Your task to perform on an android device: set the timer Image 0: 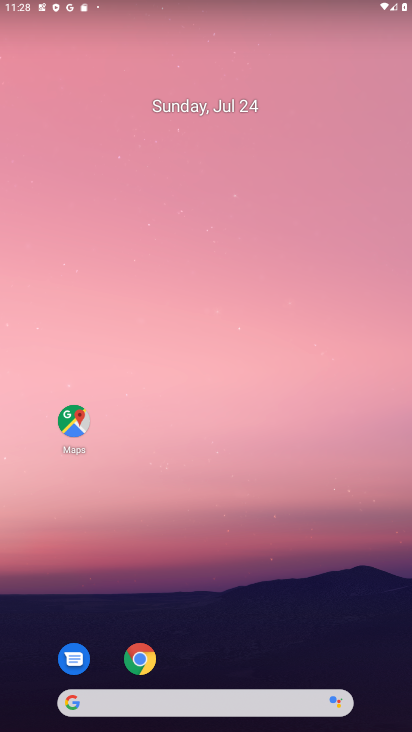
Step 0: drag from (214, 659) to (268, 243)
Your task to perform on an android device: set the timer Image 1: 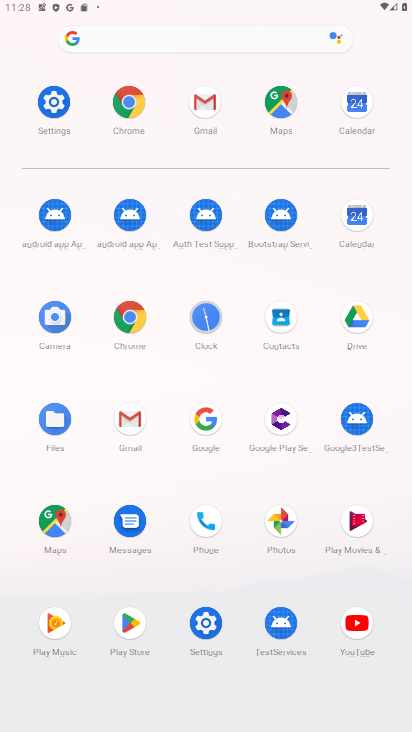
Step 1: click (193, 322)
Your task to perform on an android device: set the timer Image 2: 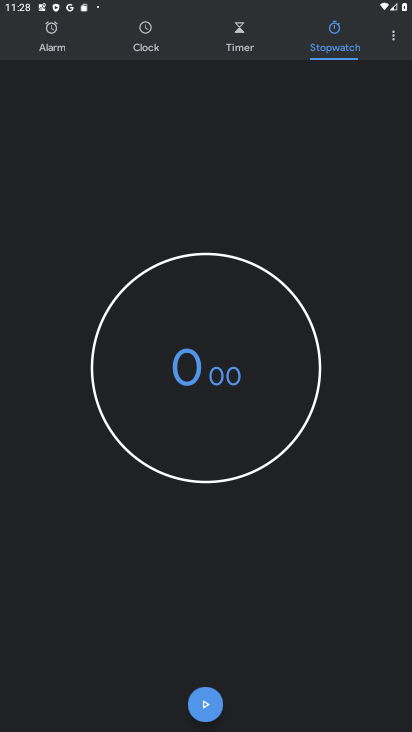
Step 2: click (255, 16)
Your task to perform on an android device: set the timer Image 3: 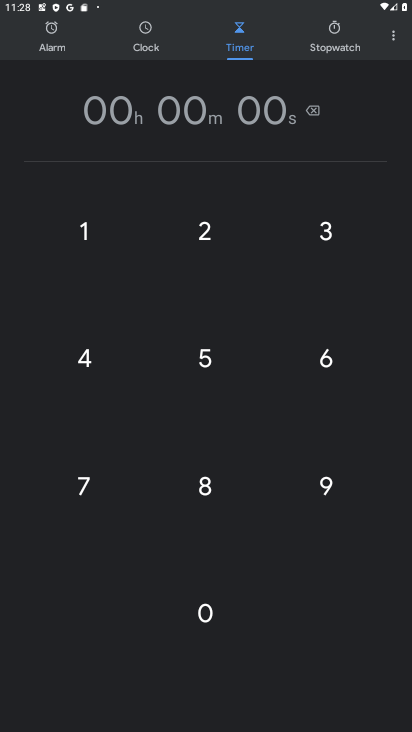
Step 3: click (194, 103)
Your task to perform on an android device: set the timer Image 4: 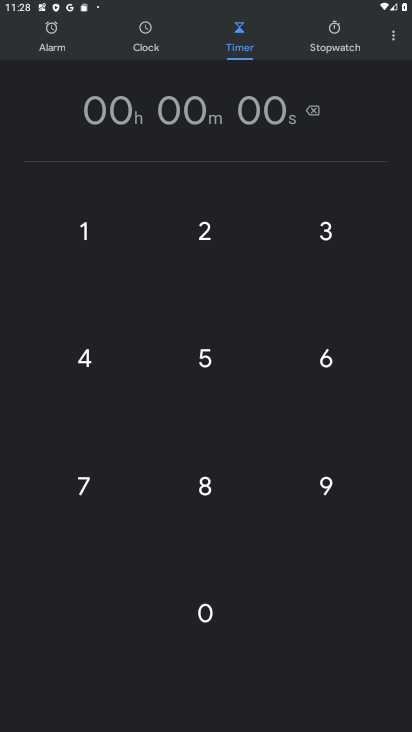
Step 4: type "65656565656 "
Your task to perform on an android device: set the timer Image 5: 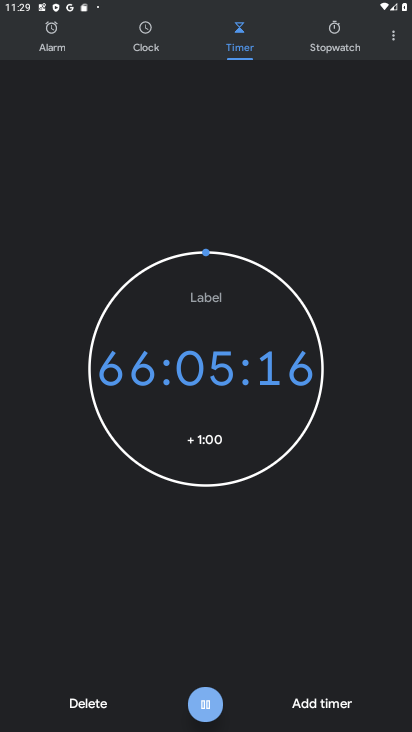
Step 5: task complete